Your task to perform on an android device: uninstall "TextNow: Call + Text Unlimited" Image 0: 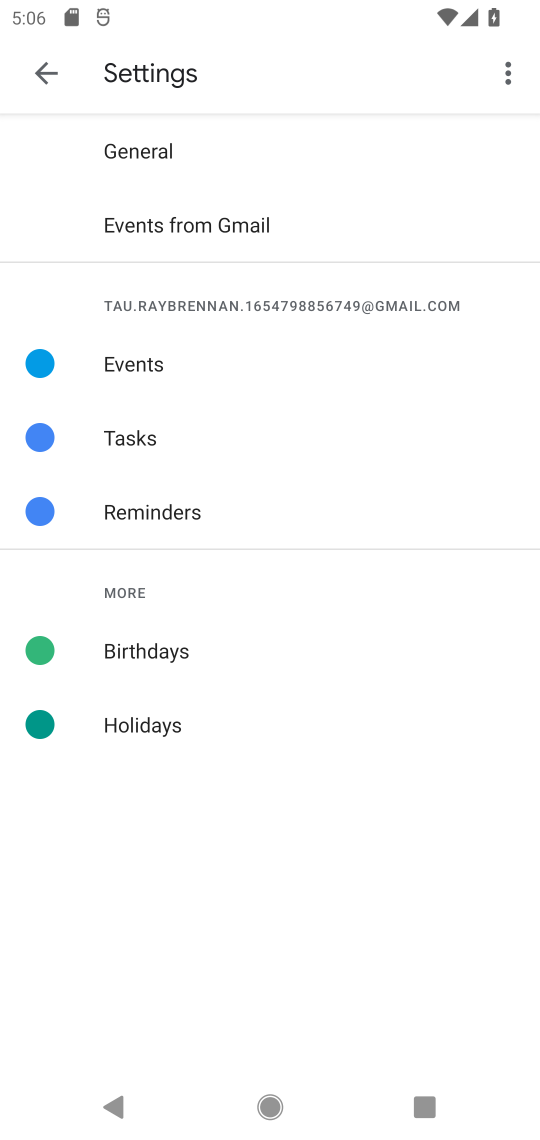
Step 0: press back button
Your task to perform on an android device: uninstall "TextNow: Call + Text Unlimited" Image 1: 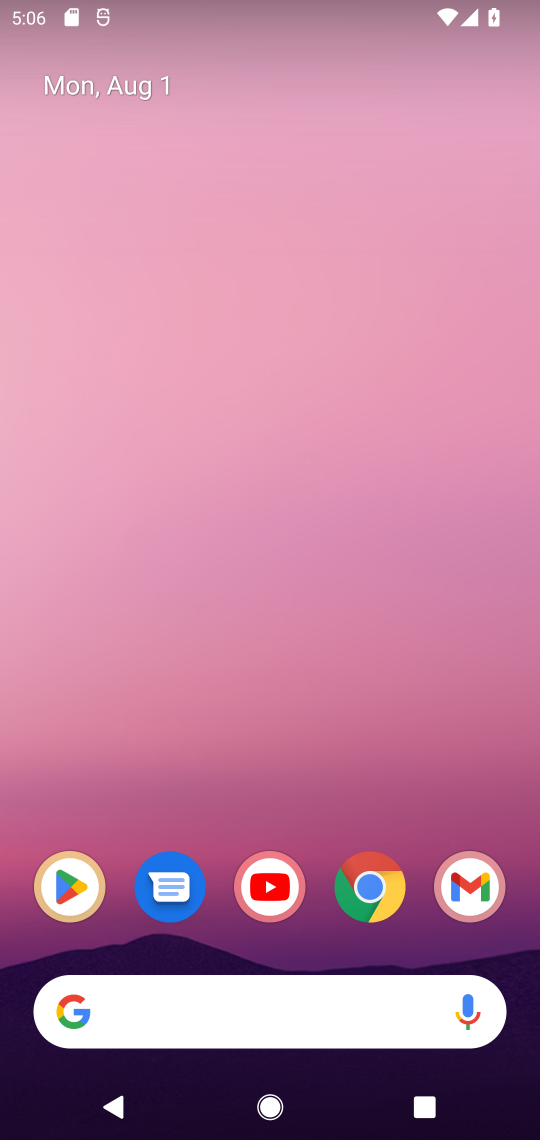
Step 1: click (62, 870)
Your task to perform on an android device: uninstall "TextNow: Call + Text Unlimited" Image 2: 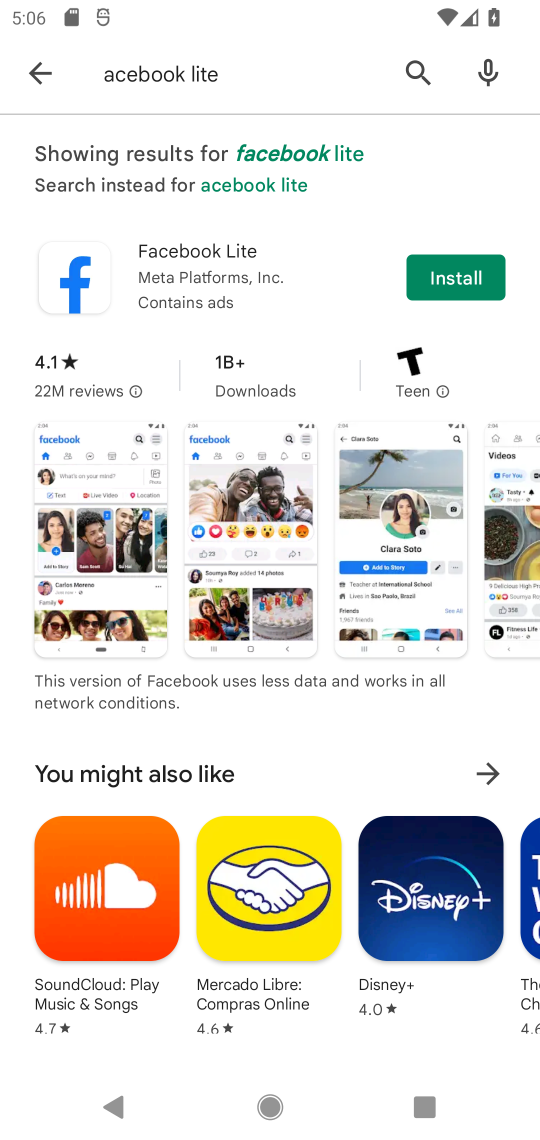
Step 2: click (44, 66)
Your task to perform on an android device: uninstall "TextNow: Call + Text Unlimited" Image 3: 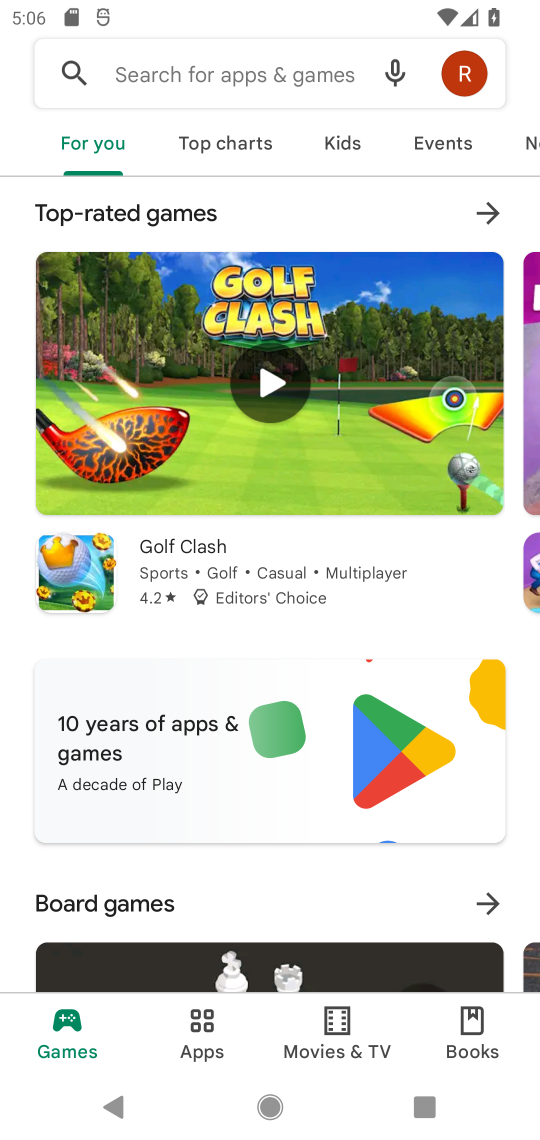
Step 3: click (121, 71)
Your task to perform on an android device: uninstall "TextNow: Call + Text Unlimited" Image 4: 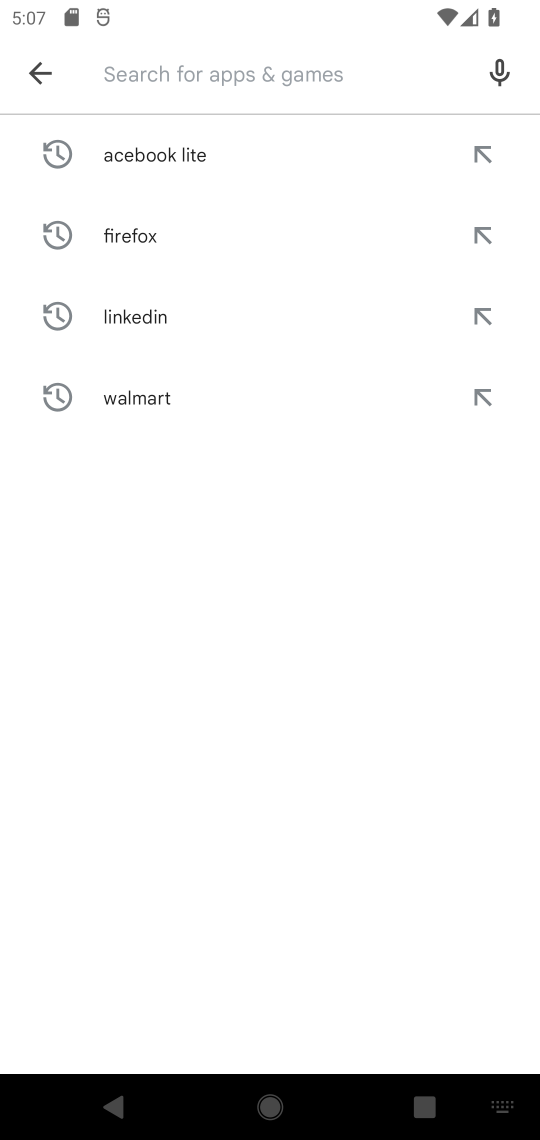
Step 4: type "TextNow"
Your task to perform on an android device: uninstall "TextNow: Call + Text Unlimited" Image 5: 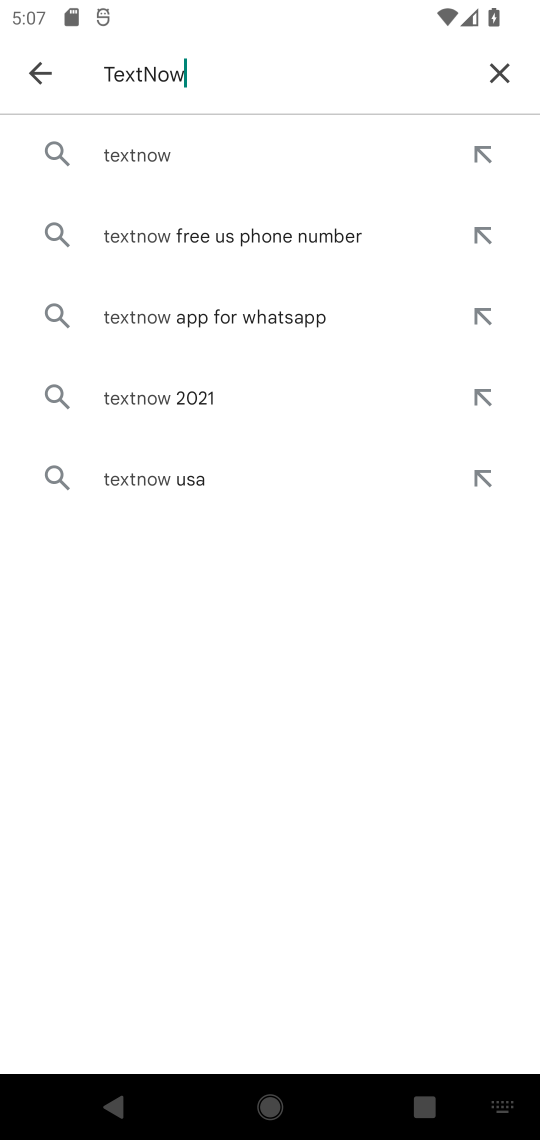
Step 5: click (143, 137)
Your task to perform on an android device: uninstall "TextNow: Call + Text Unlimited" Image 6: 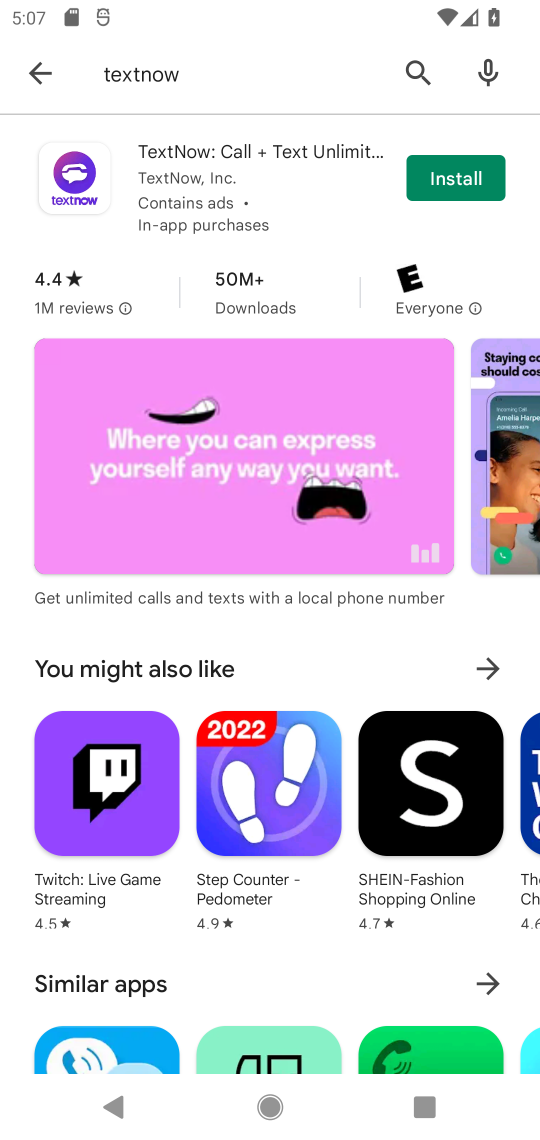
Step 6: click (143, 137)
Your task to perform on an android device: uninstall "TextNow: Call + Text Unlimited" Image 7: 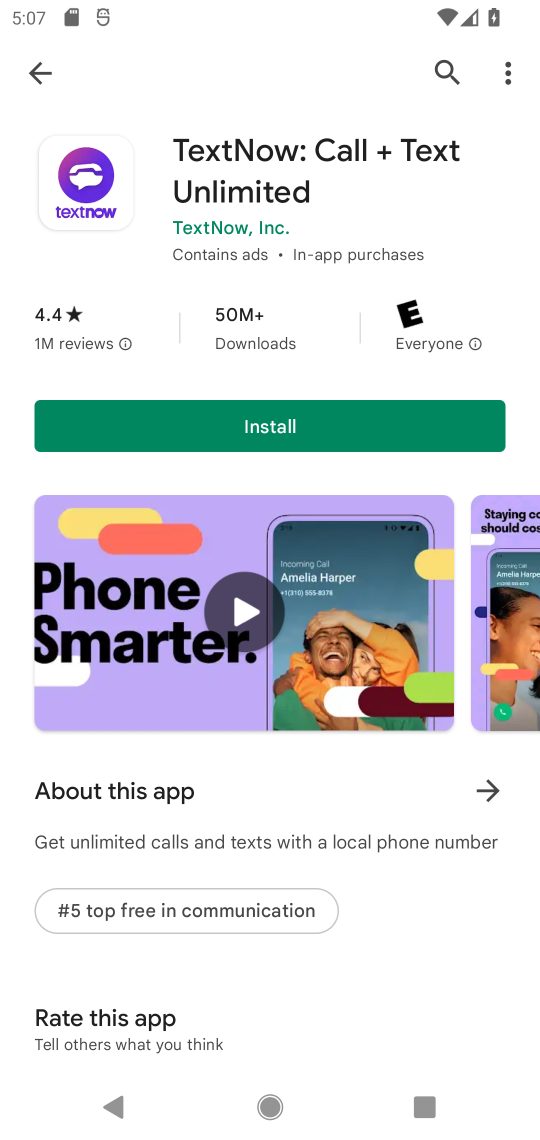
Step 7: task complete